Your task to perform on an android device: turn on sleep mode Image 0: 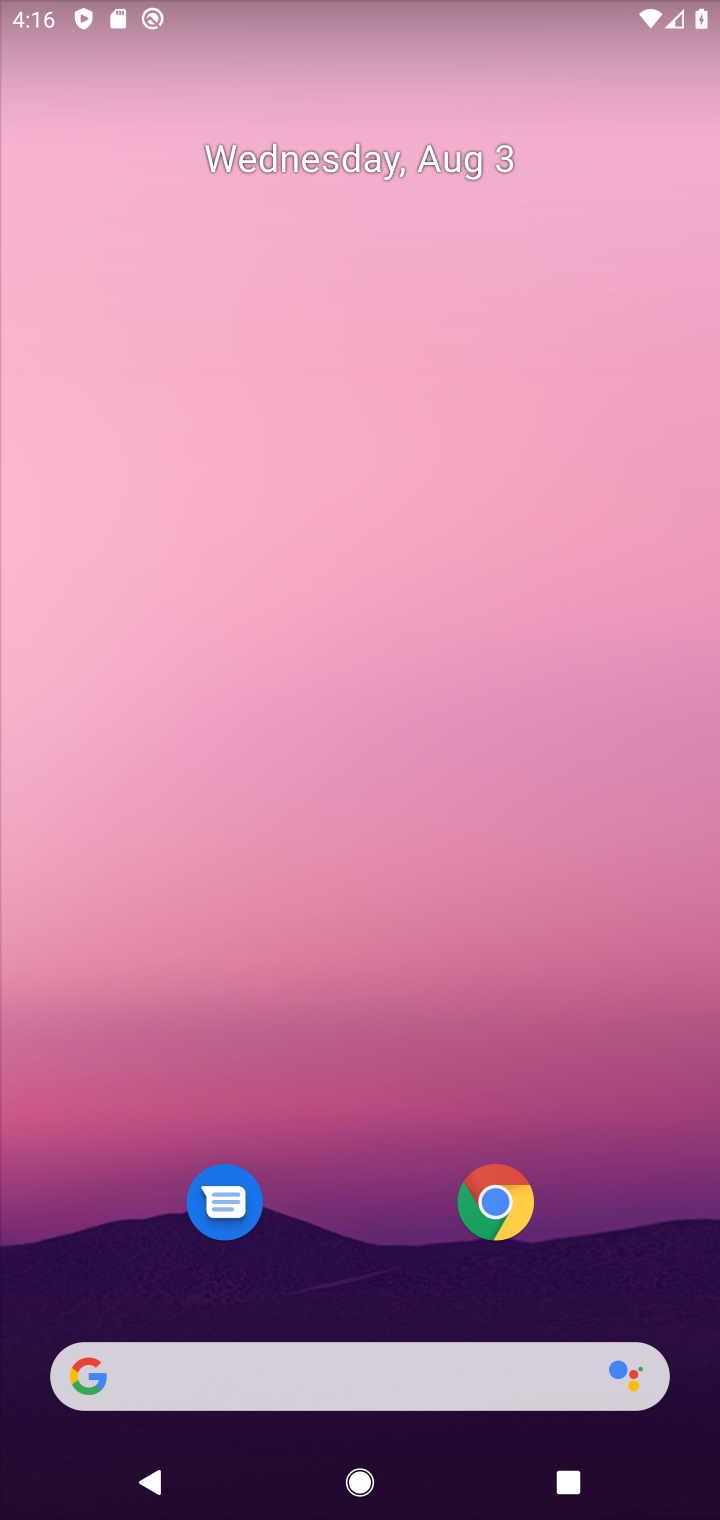
Step 0: drag from (370, 1266) to (366, 2)
Your task to perform on an android device: turn on sleep mode Image 1: 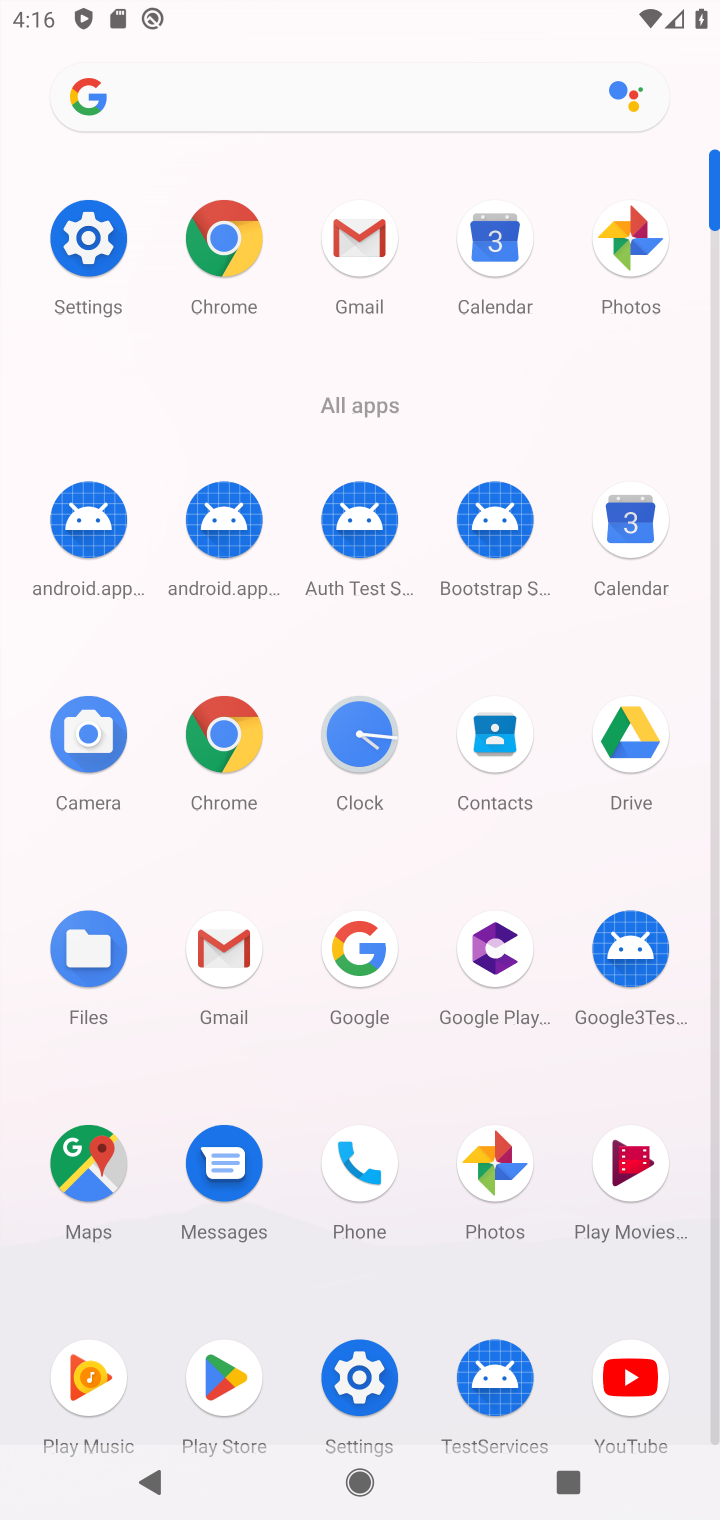
Step 1: click (81, 253)
Your task to perform on an android device: turn on sleep mode Image 2: 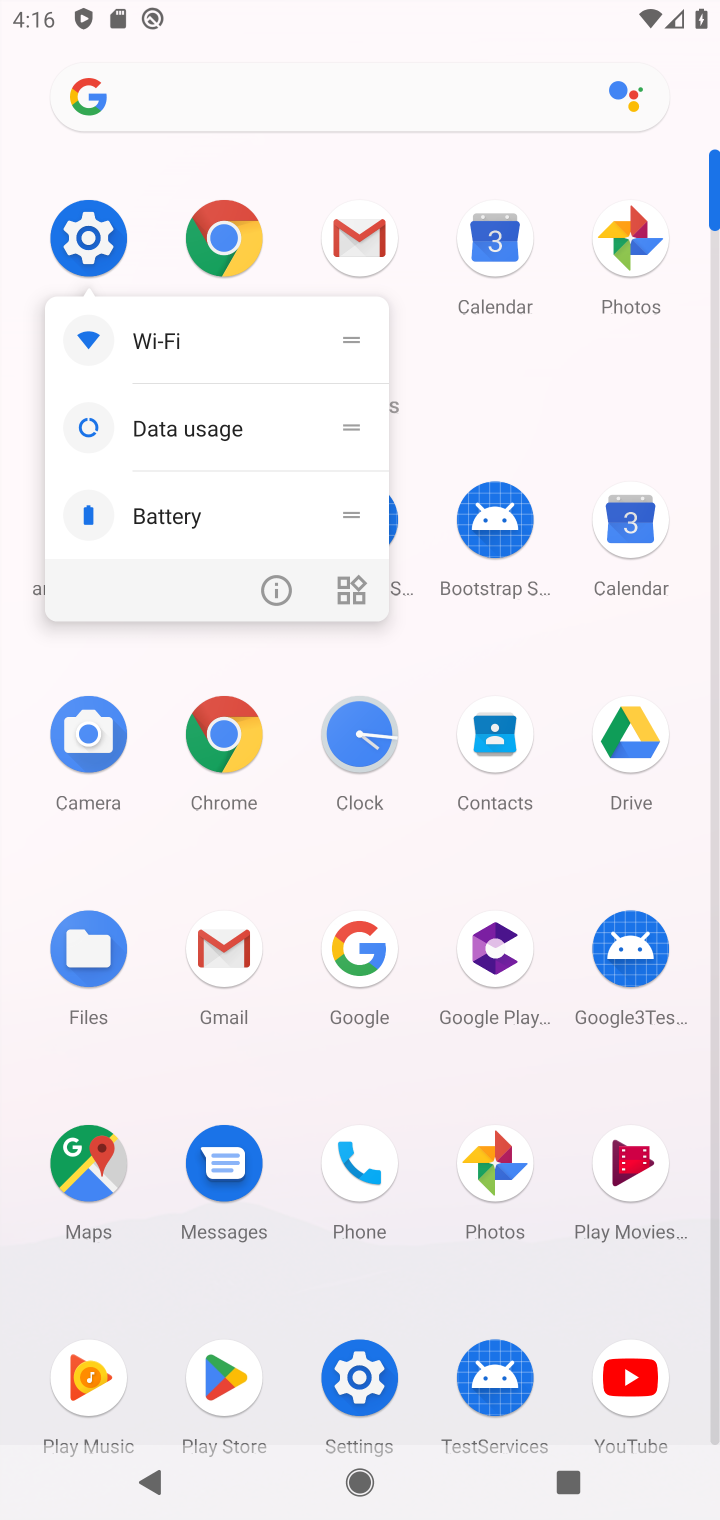
Step 2: click (84, 223)
Your task to perform on an android device: turn on sleep mode Image 3: 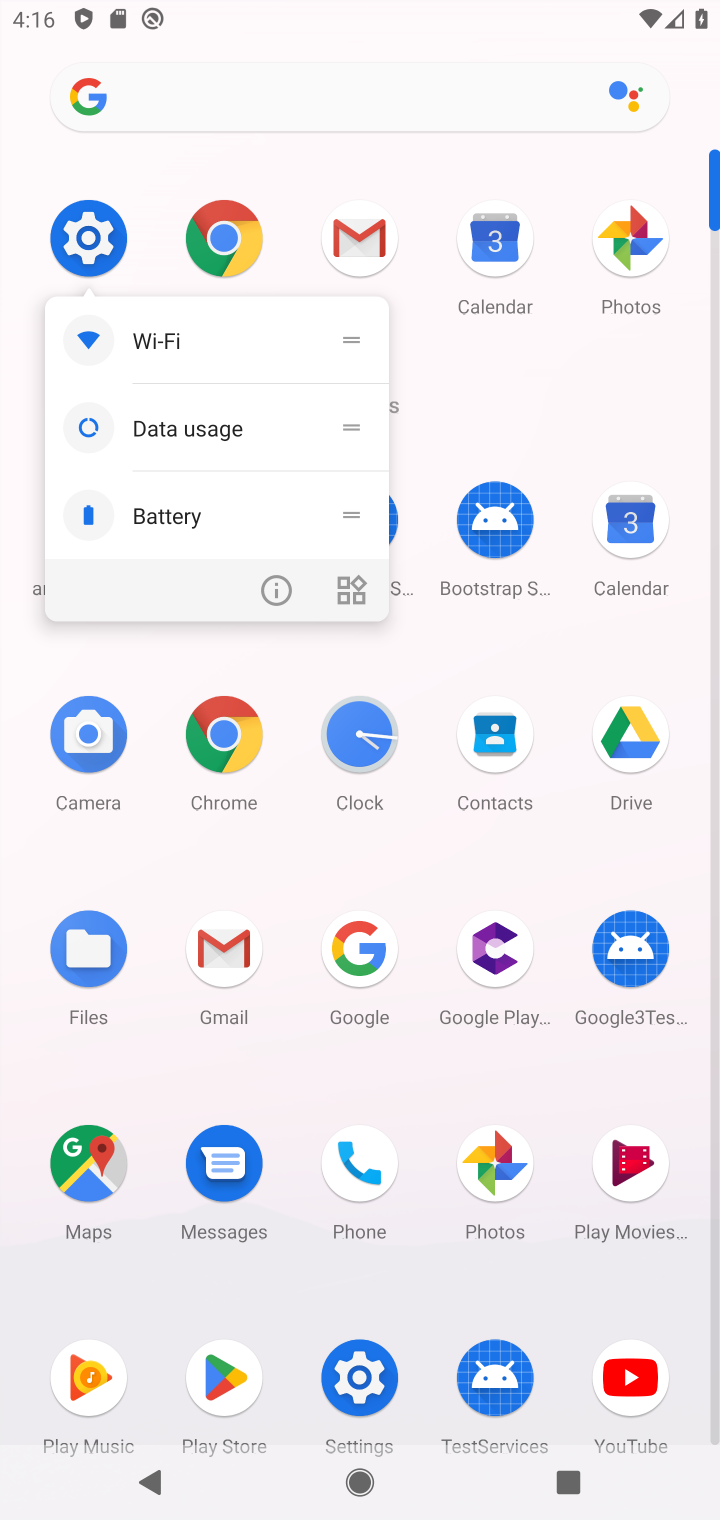
Step 3: click (119, 232)
Your task to perform on an android device: turn on sleep mode Image 4: 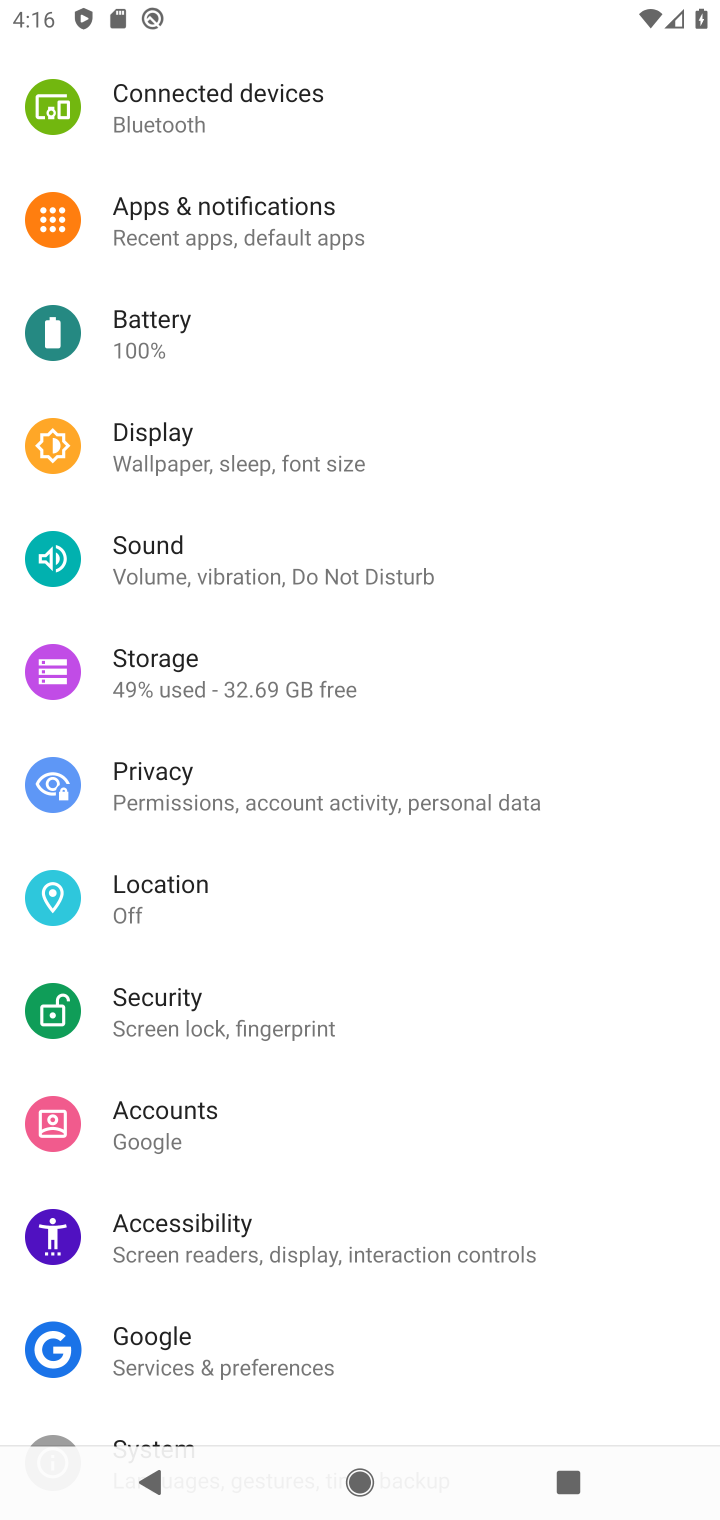
Step 4: drag from (342, 174) to (390, 1473)
Your task to perform on an android device: turn on sleep mode Image 5: 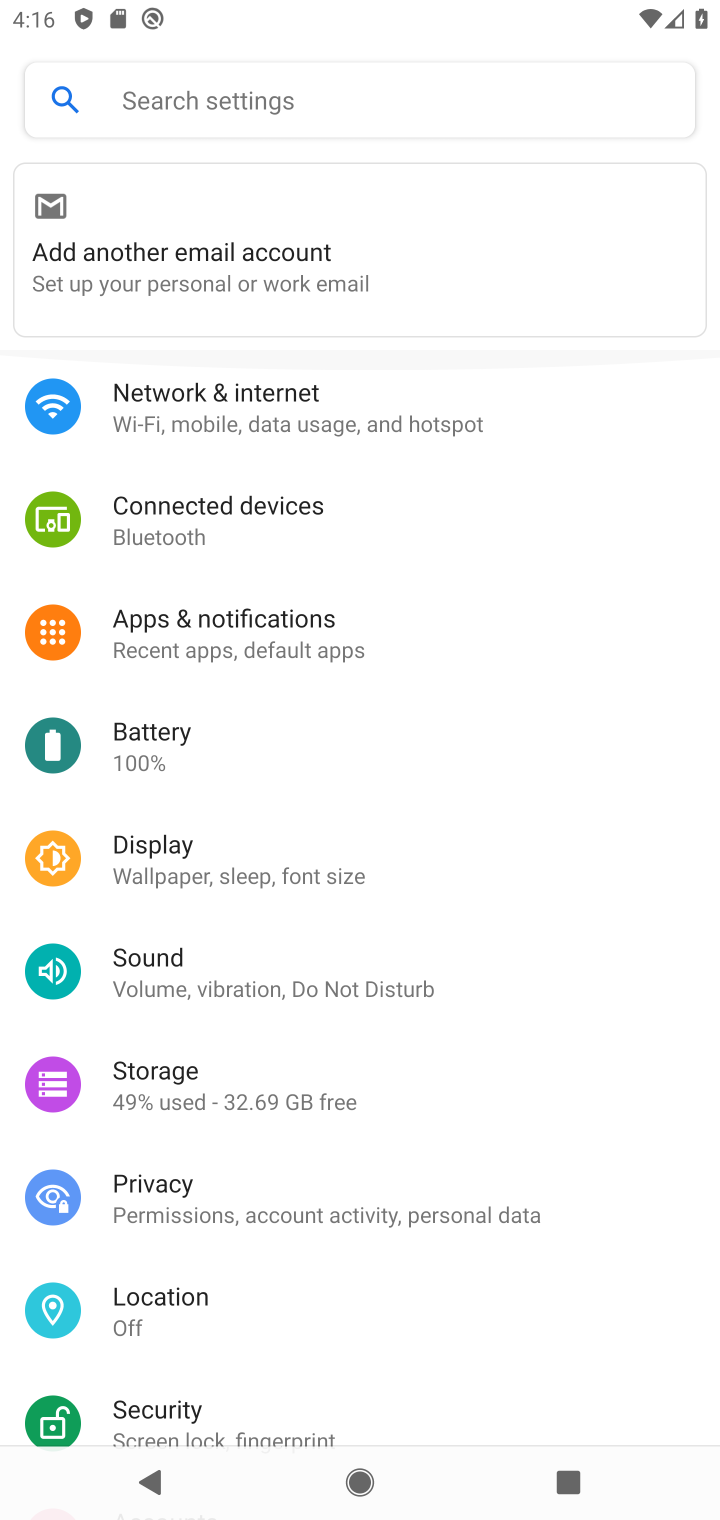
Step 5: click (276, 93)
Your task to perform on an android device: turn on sleep mode Image 6: 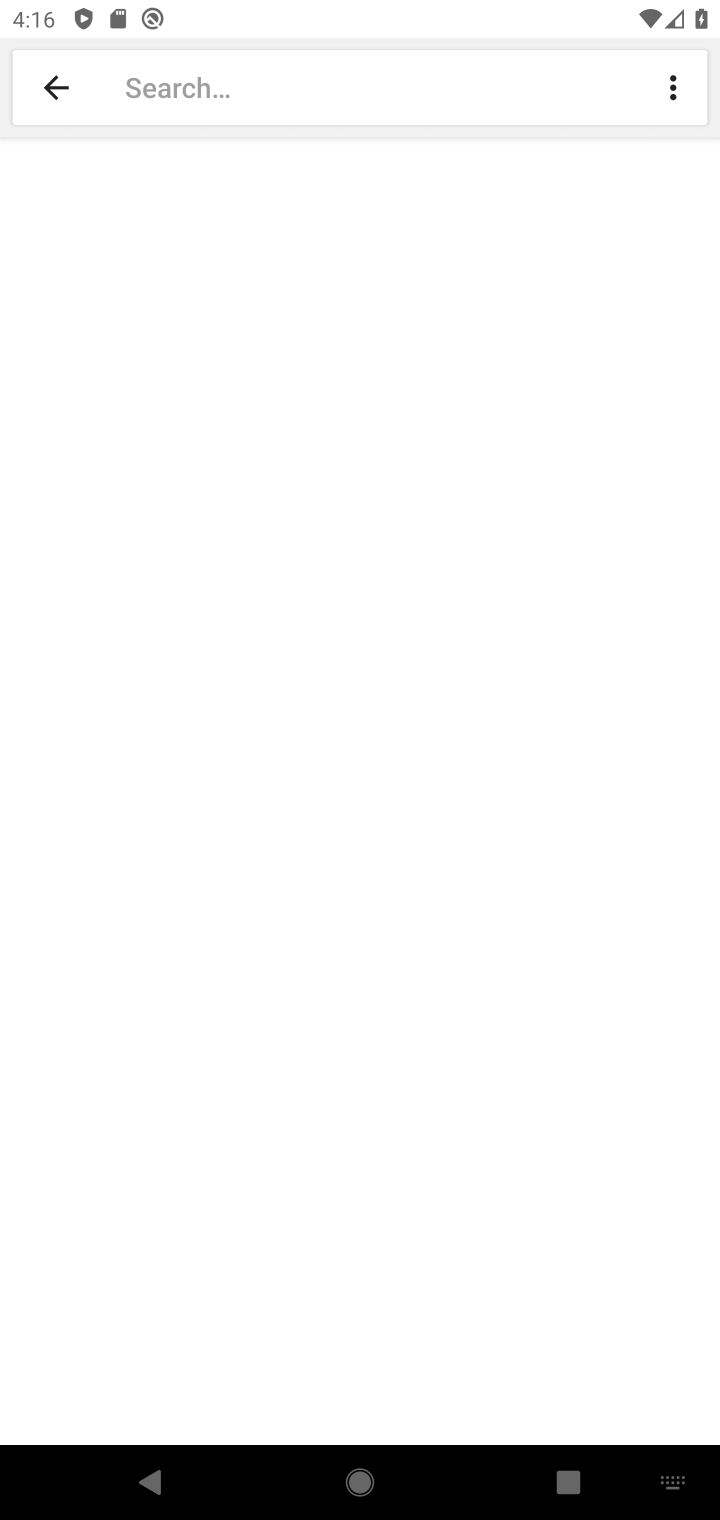
Step 6: type "sleep mode"
Your task to perform on an android device: turn on sleep mode Image 7: 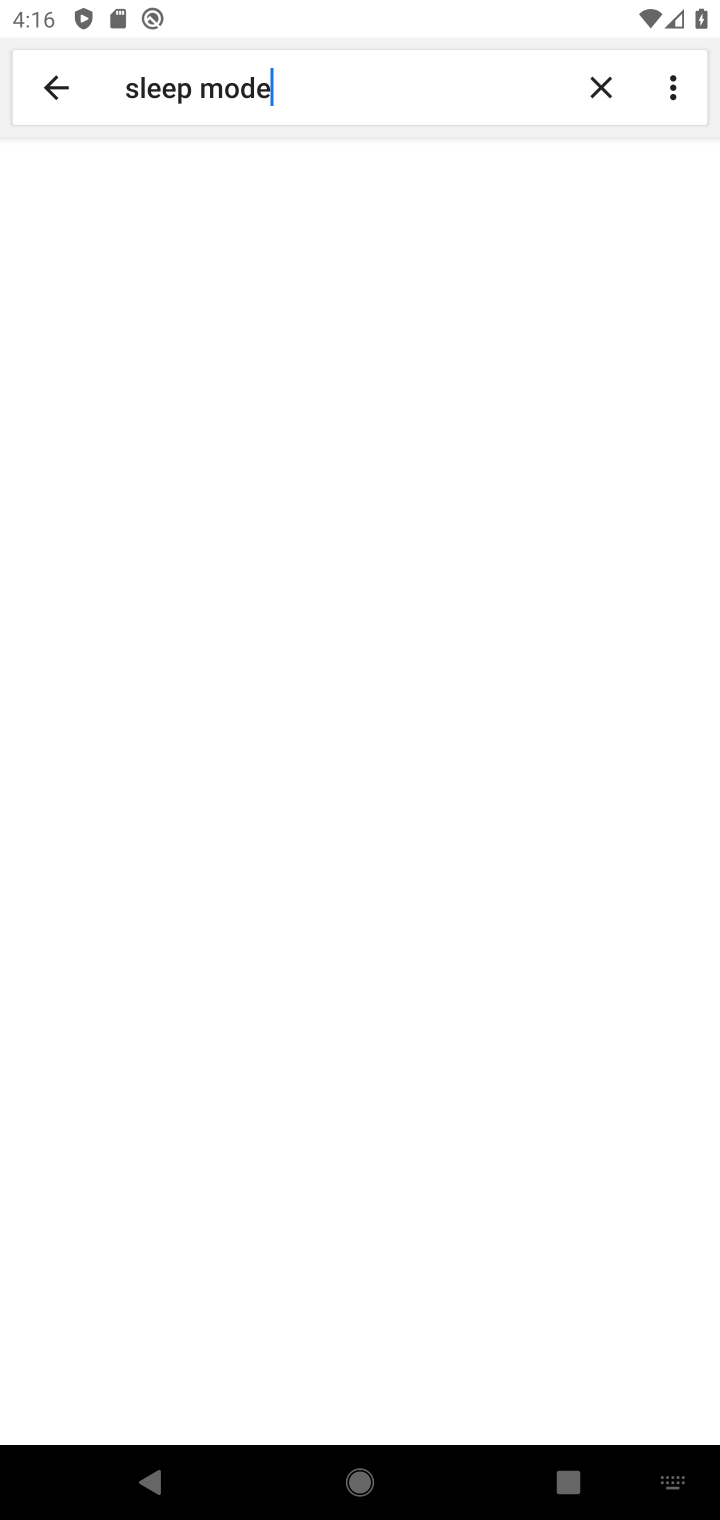
Step 7: task complete